Your task to perform on an android device: change alarm snooze length Image 0: 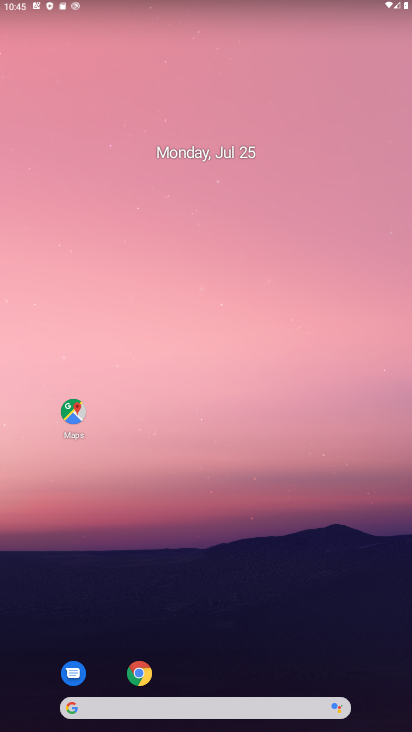
Step 0: press home button
Your task to perform on an android device: change alarm snooze length Image 1: 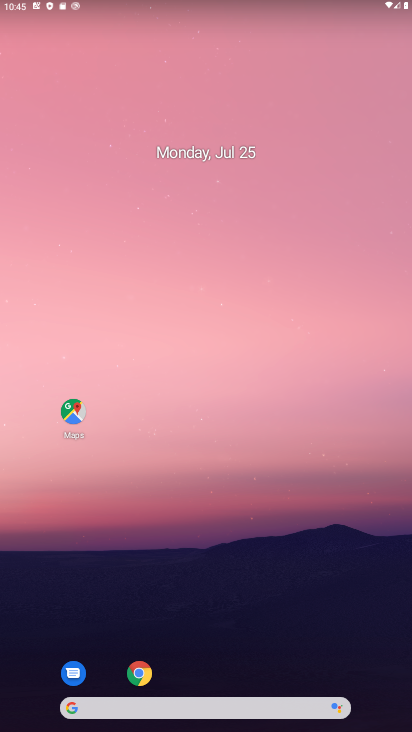
Step 1: drag from (226, 667) to (256, 114)
Your task to perform on an android device: change alarm snooze length Image 2: 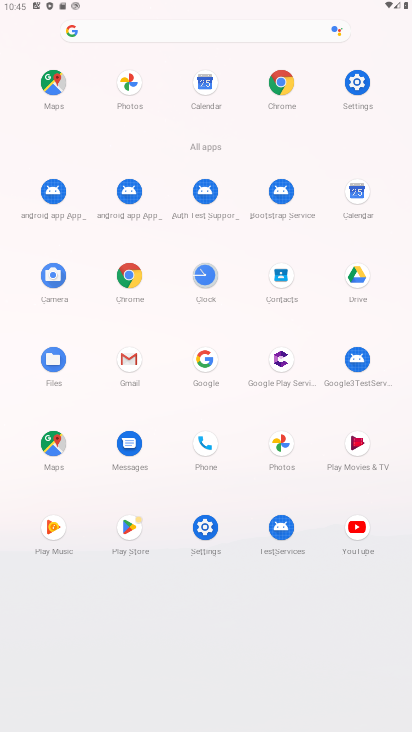
Step 2: click (202, 271)
Your task to perform on an android device: change alarm snooze length Image 3: 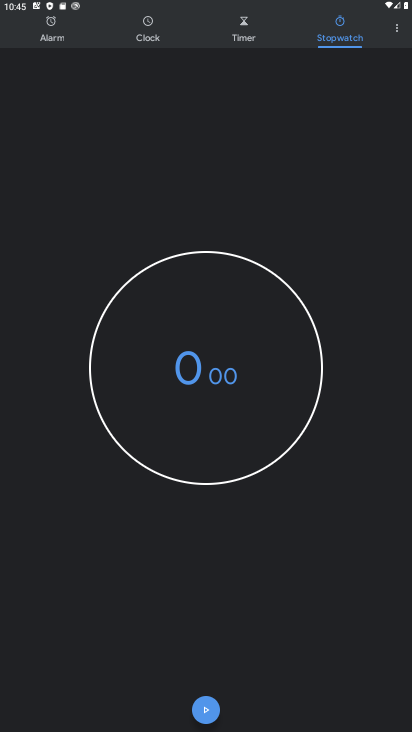
Step 3: click (391, 31)
Your task to perform on an android device: change alarm snooze length Image 4: 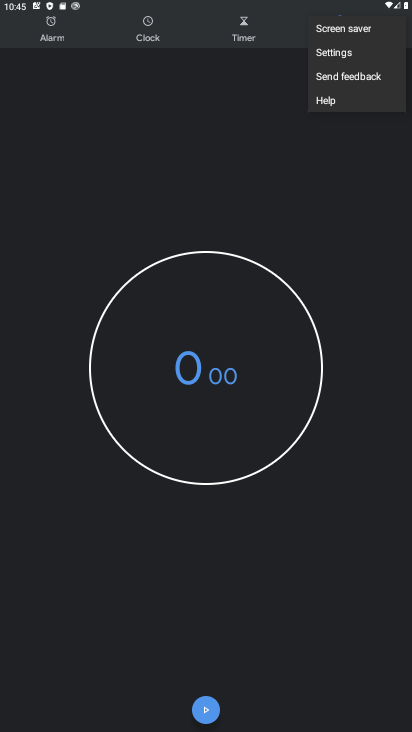
Step 4: click (359, 51)
Your task to perform on an android device: change alarm snooze length Image 5: 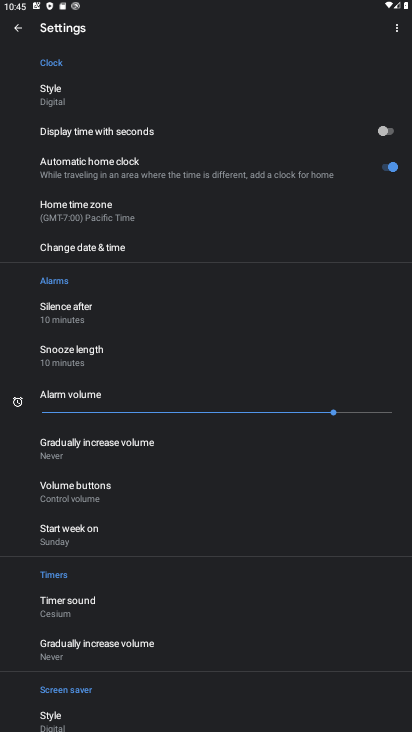
Step 5: click (106, 348)
Your task to perform on an android device: change alarm snooze length Image 6: 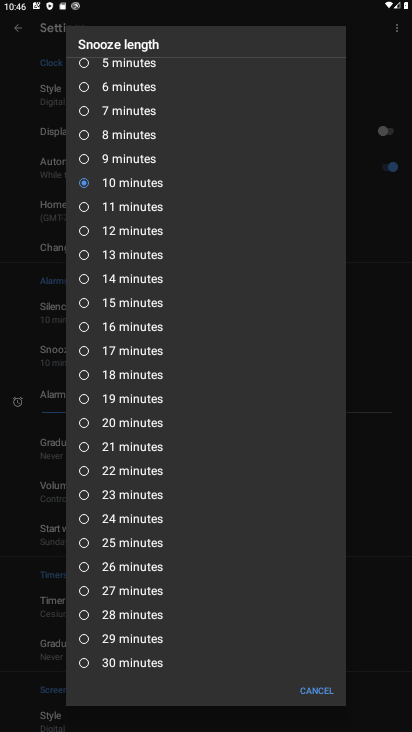
Step 6: click (85, 91)
Your task to perform on an android device: change alarm snooze length Image 7: 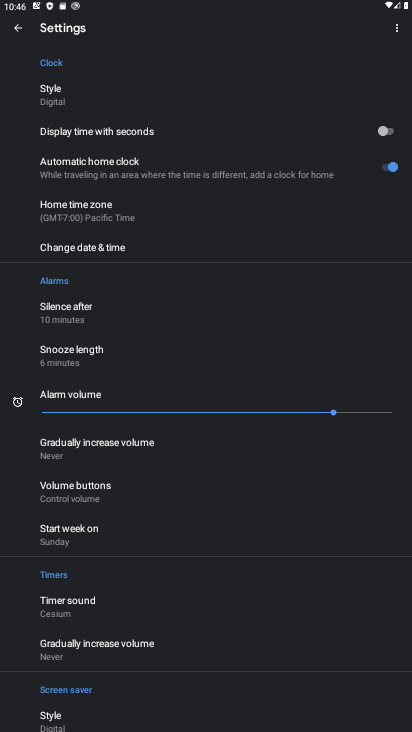
Step 7: task complete